Your task to perform on an android device: turn on the 12-hour format for clock Image 0: 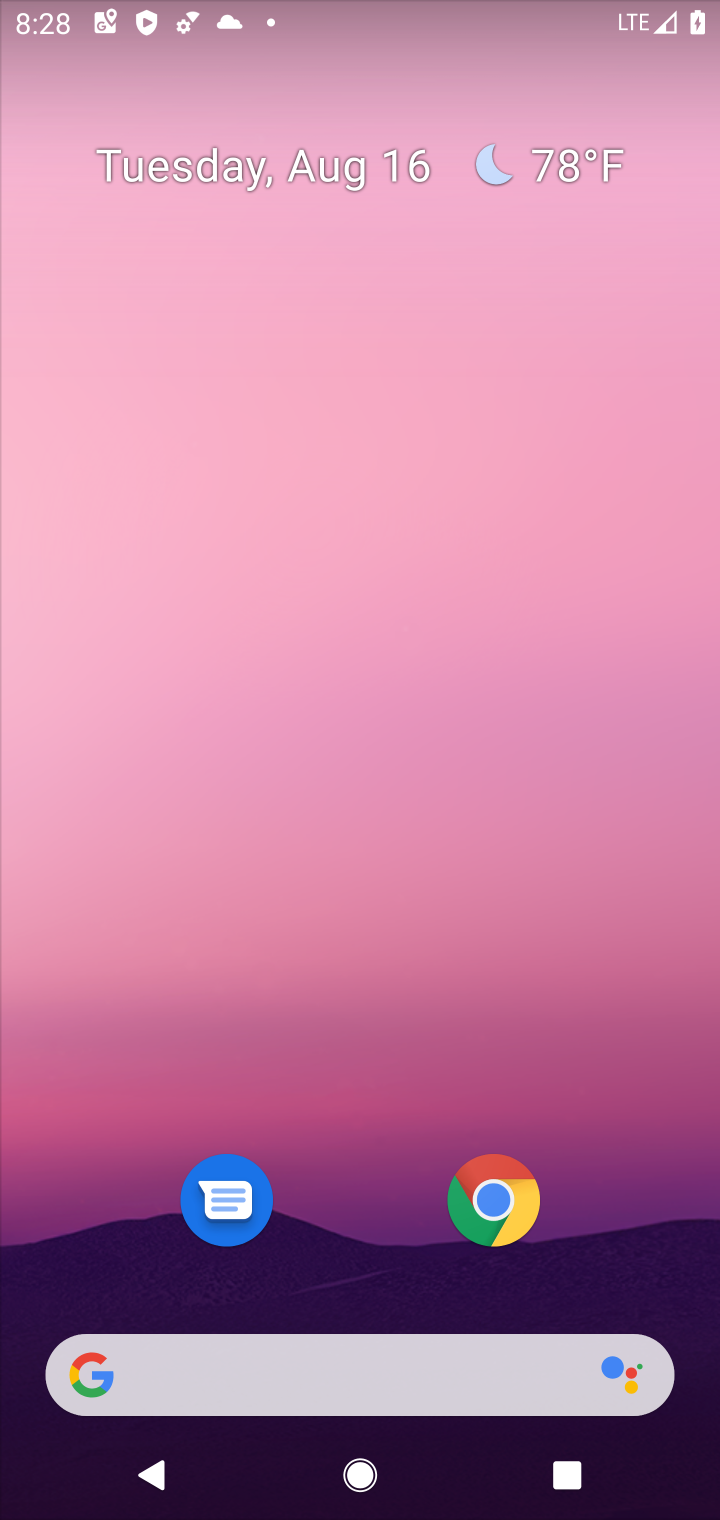
Step 0: drag from (664, 1212) to (596, 174)
Your task to perform on an android device: turn on the 12-hour format for clock Image 1: 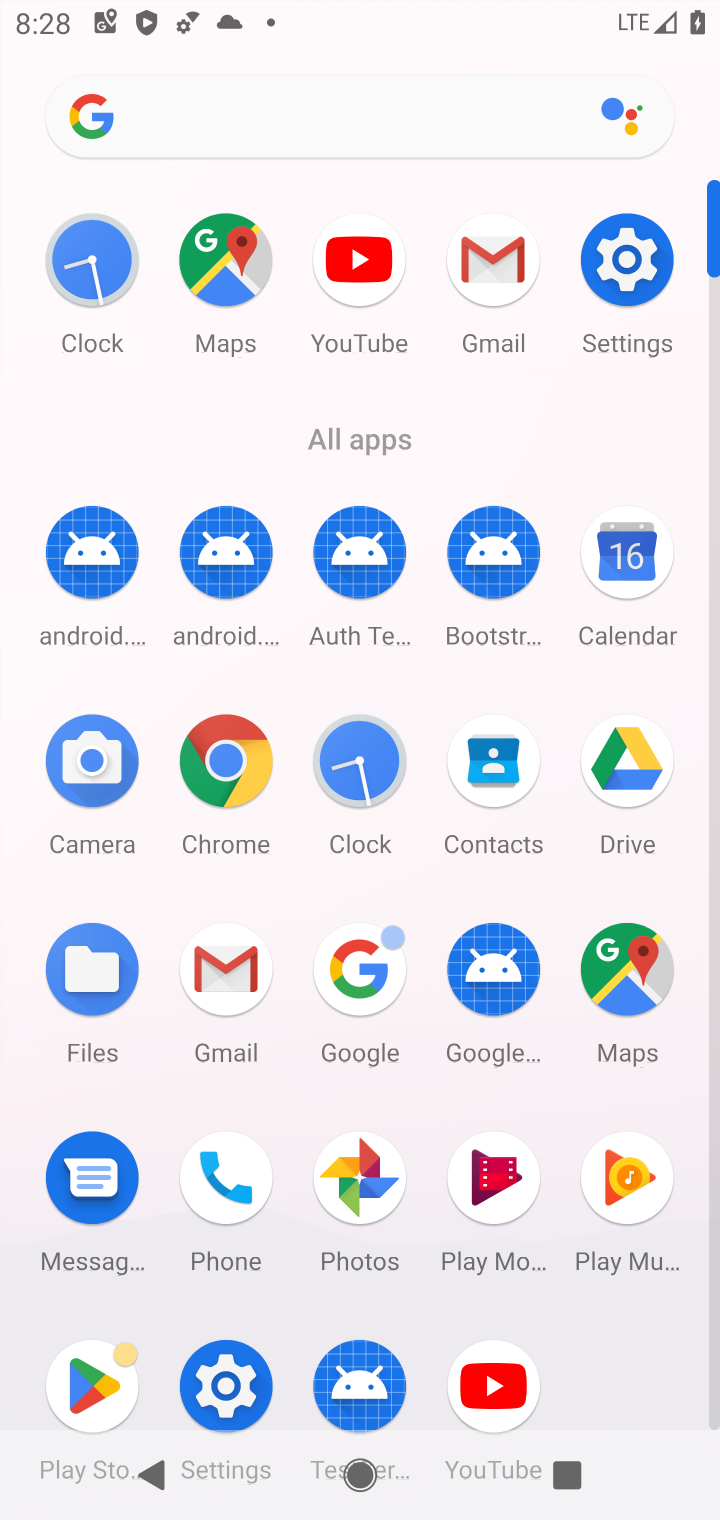
Step 1: click (358, 765)
Your task to perform on an android device: turn on the 12-hour format for clock Image 2: 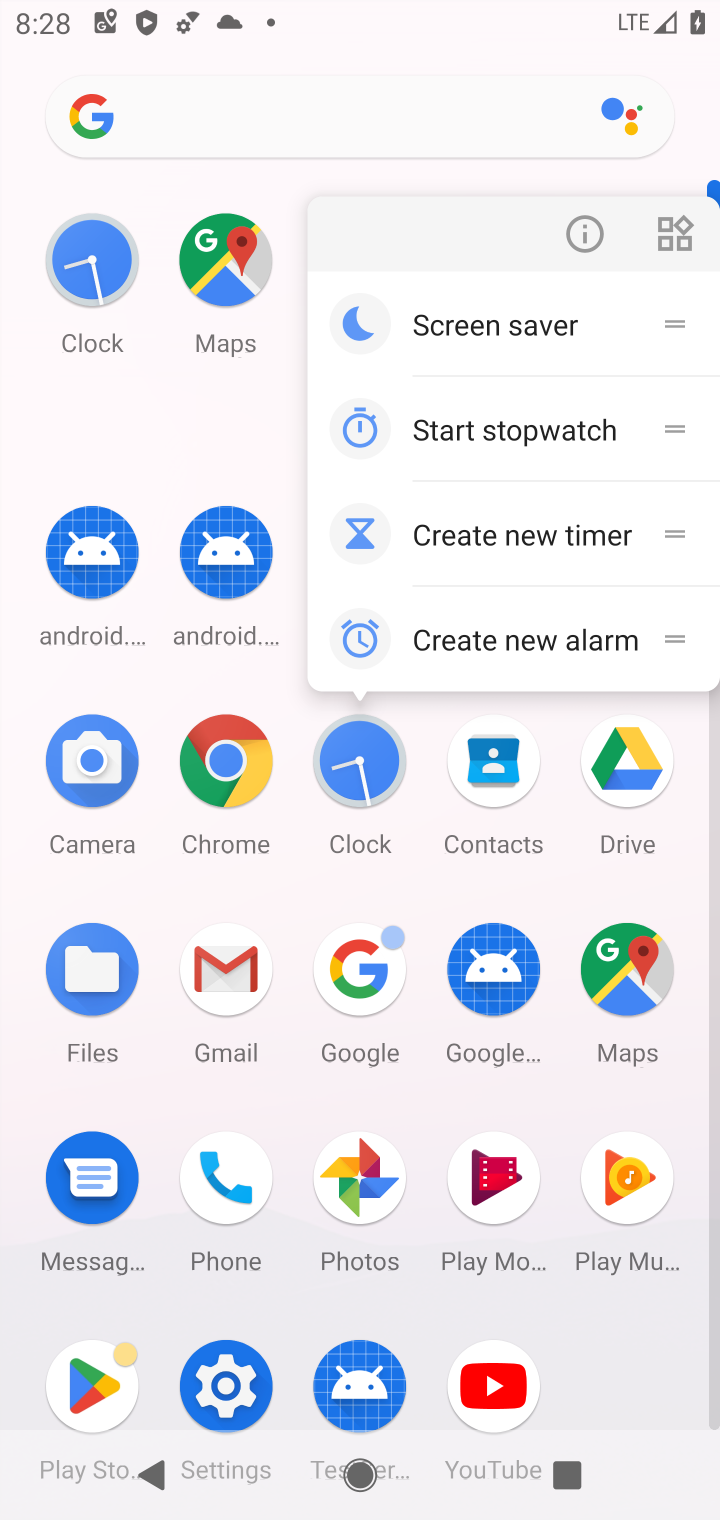
Step 2: click (358, 765)
Your task to perform on an android device: turn on the 12-hour format for clock Image 3: 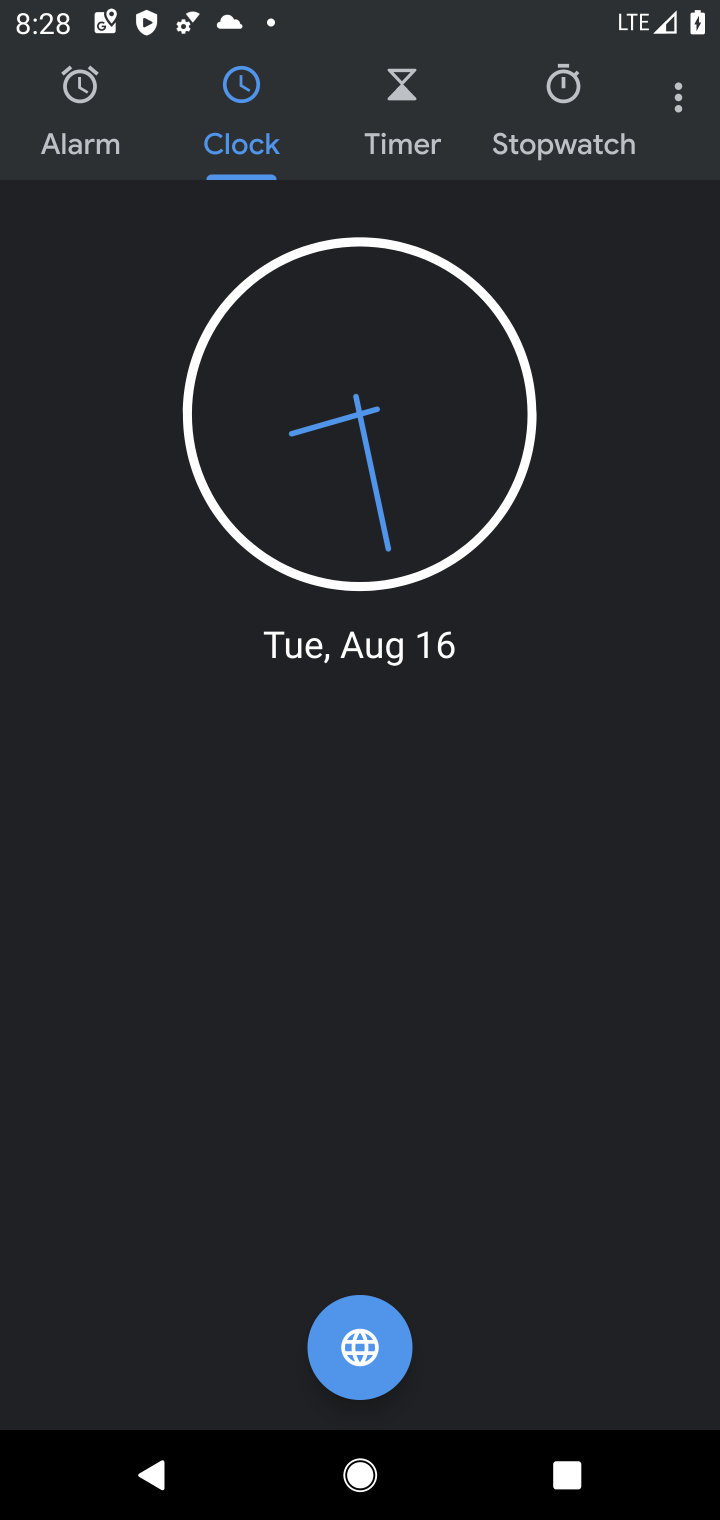
Step 3: click (677, 117)
Your task to perform on an android device: turn on the 12-hour format for clock Image 4: 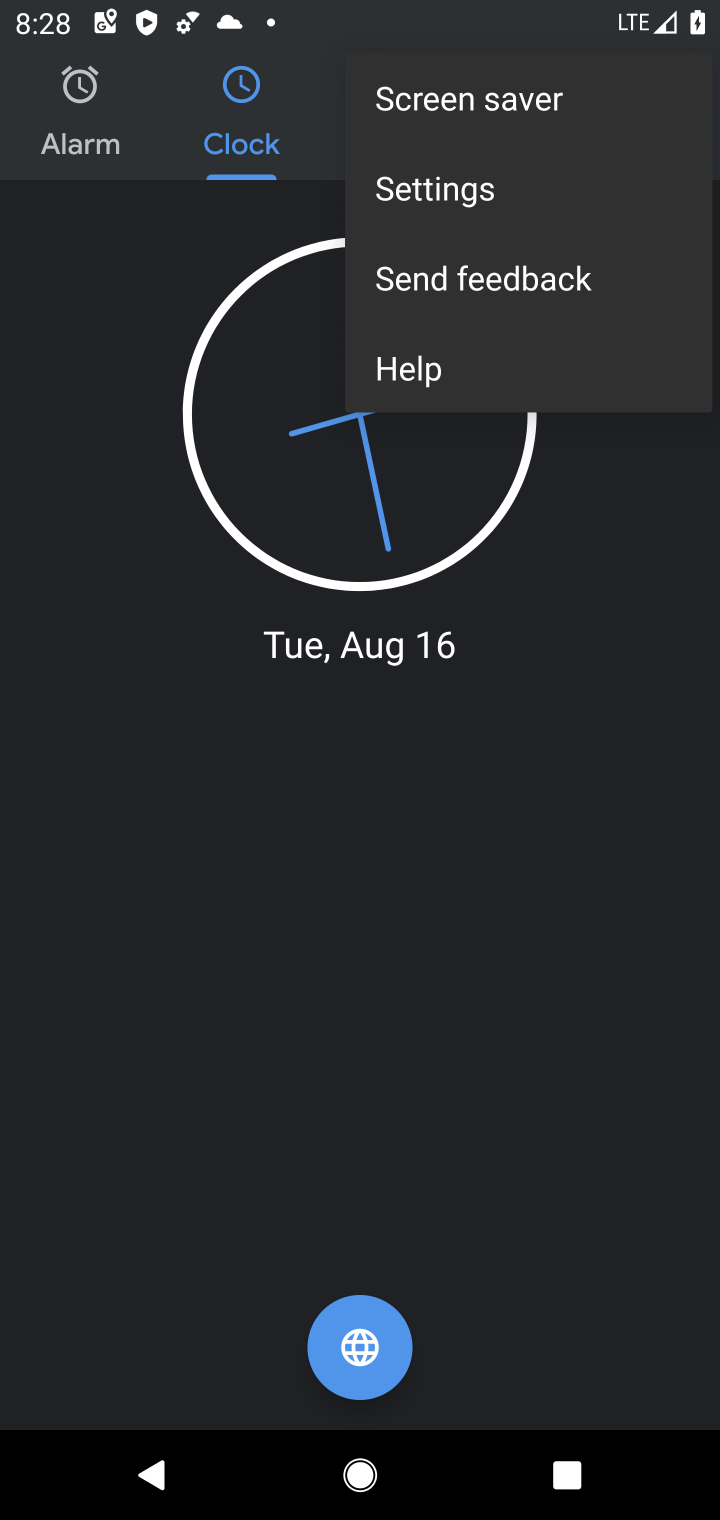
Step 4: click (417, 189)
Your task to perform on an android device: turn on the 12-hour format for clock Image 5: 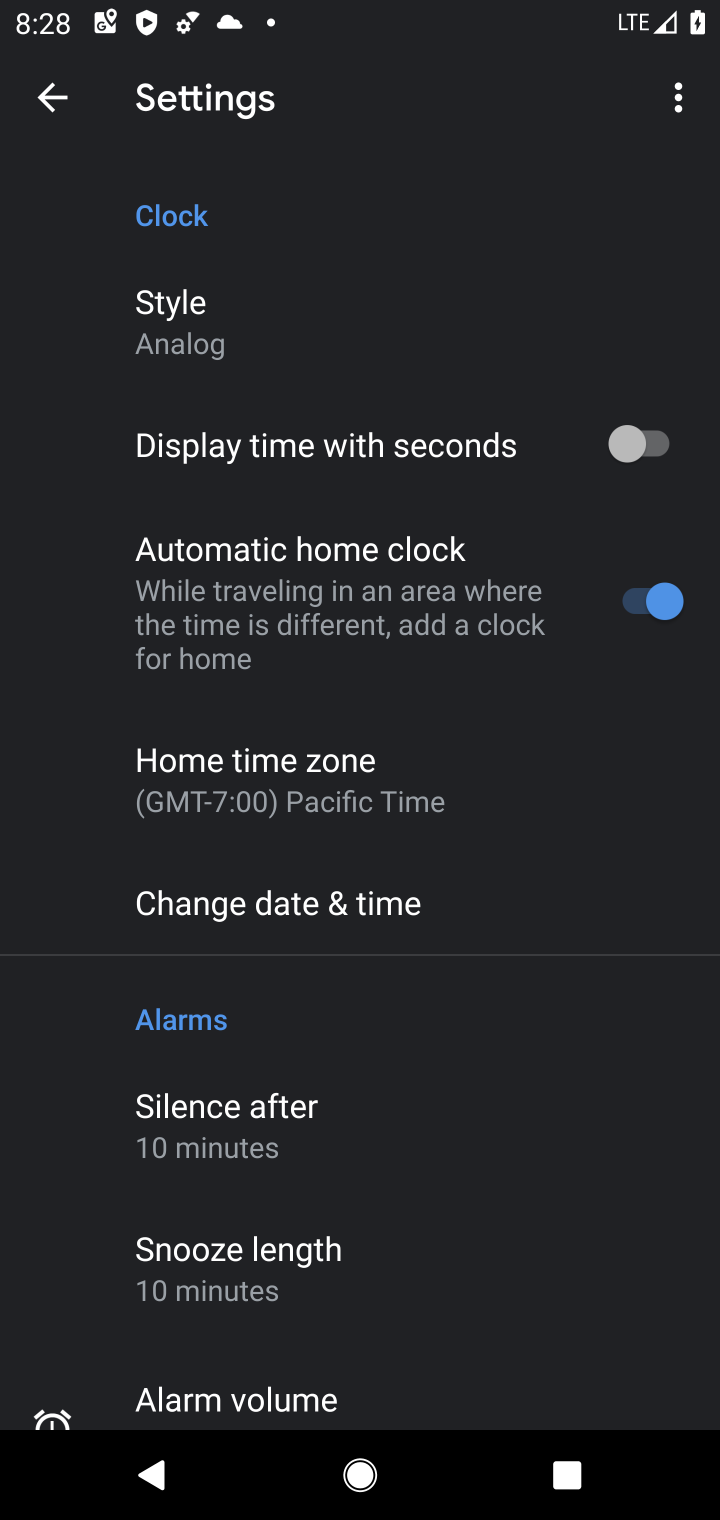
Step 5: click (333, 917)
Your task to perform on an android device: turn on the 12-hour format for clock Image 6: 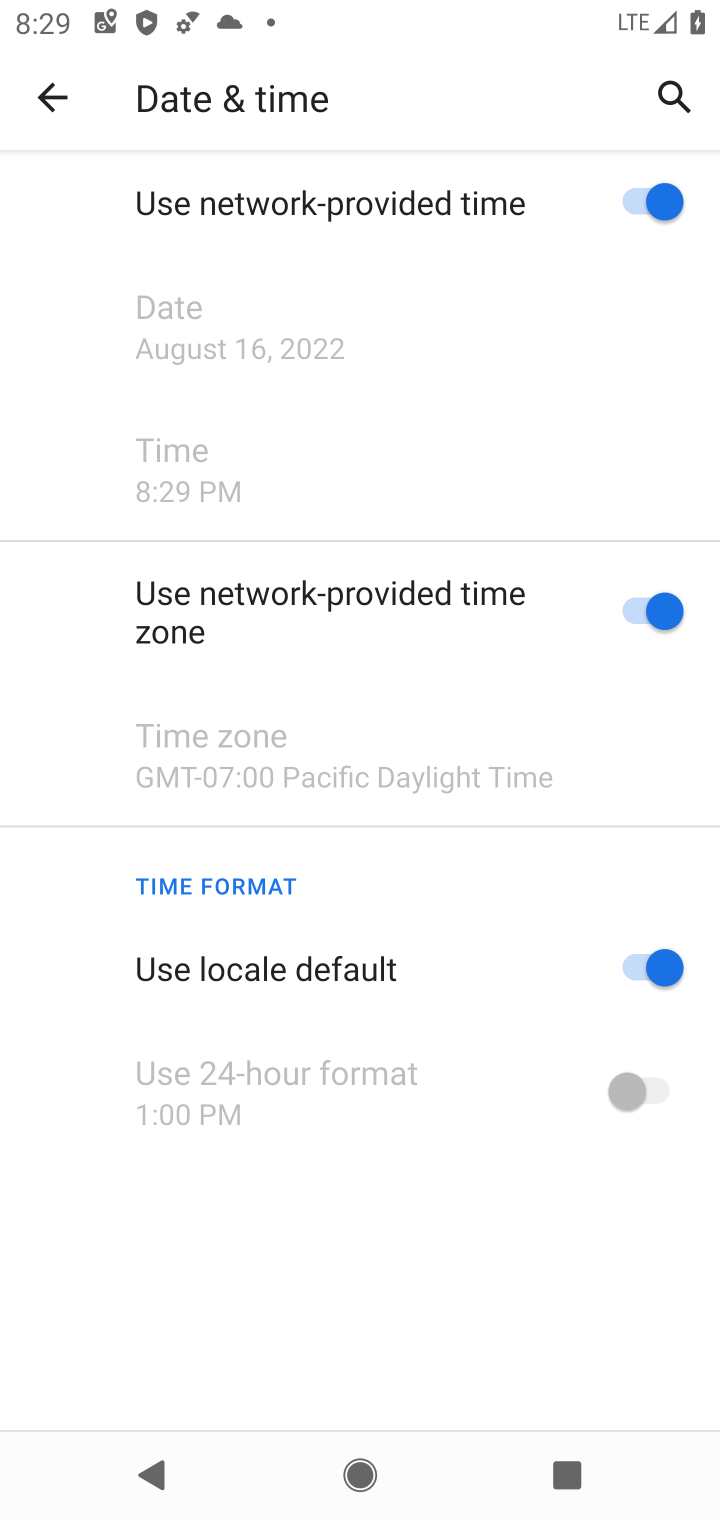
Step 6: task complete